Your task to perform on an android device: See recent photos Image 0: 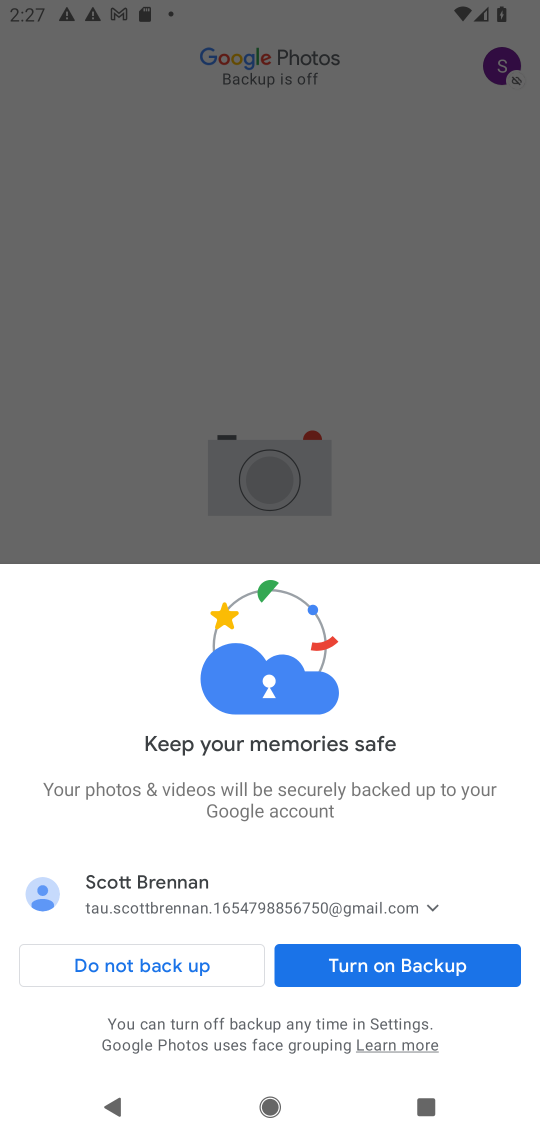
Step 0: click (390, 965)
Your task to perform on an android device: See recent photos Image 1: 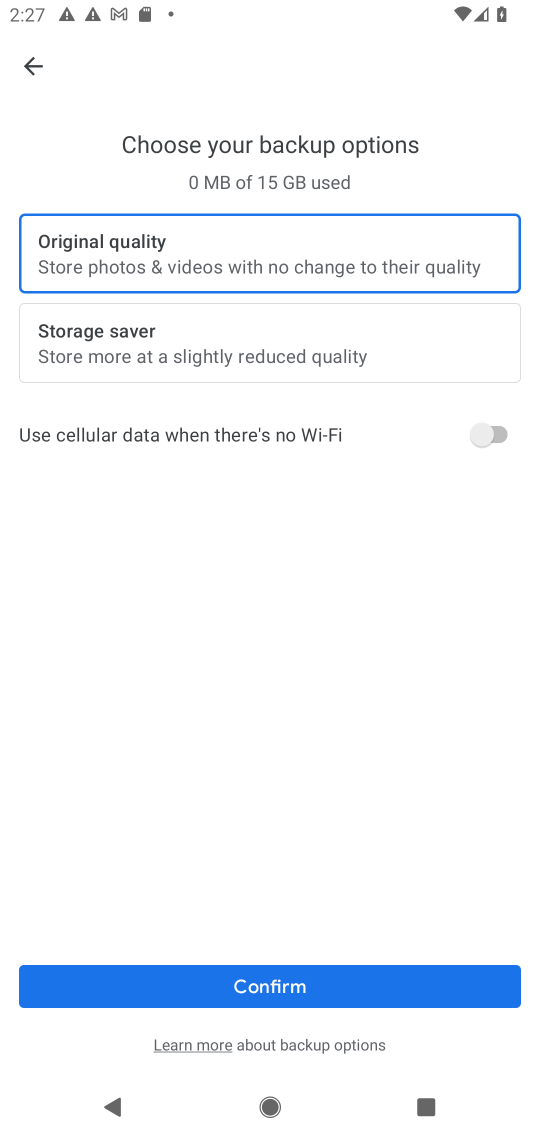
Step 1: click (275, 983)
Your task to perform on an android device: See recent photos Image 2: 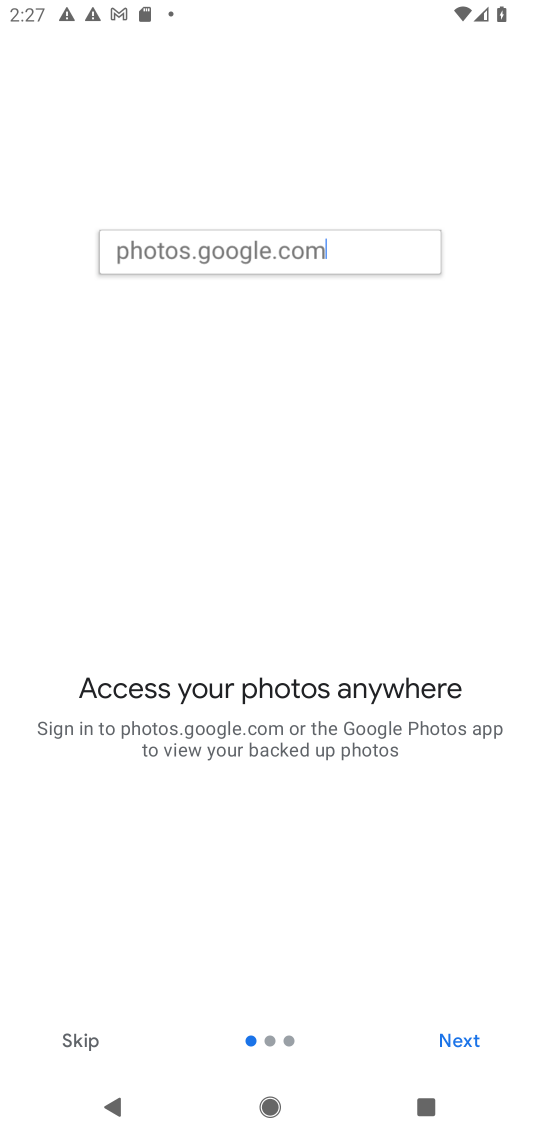
Step 2: click (79, 1035)
Your task to perform on an android device: See recent photos Image 3: 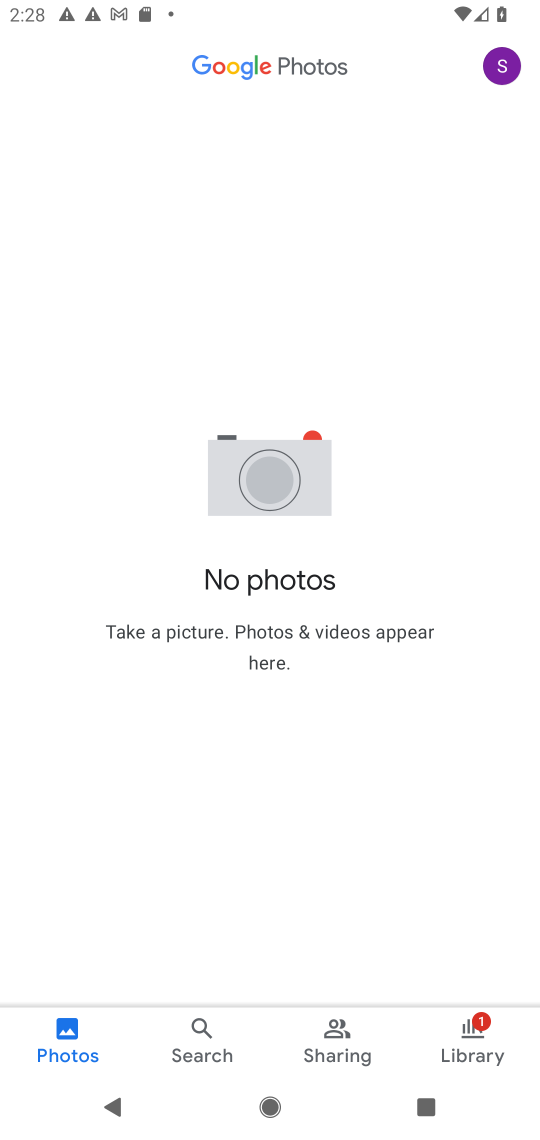
Step 3: task complete